Your task to perform on an android device: snooze an email in the gmail app Image 0: 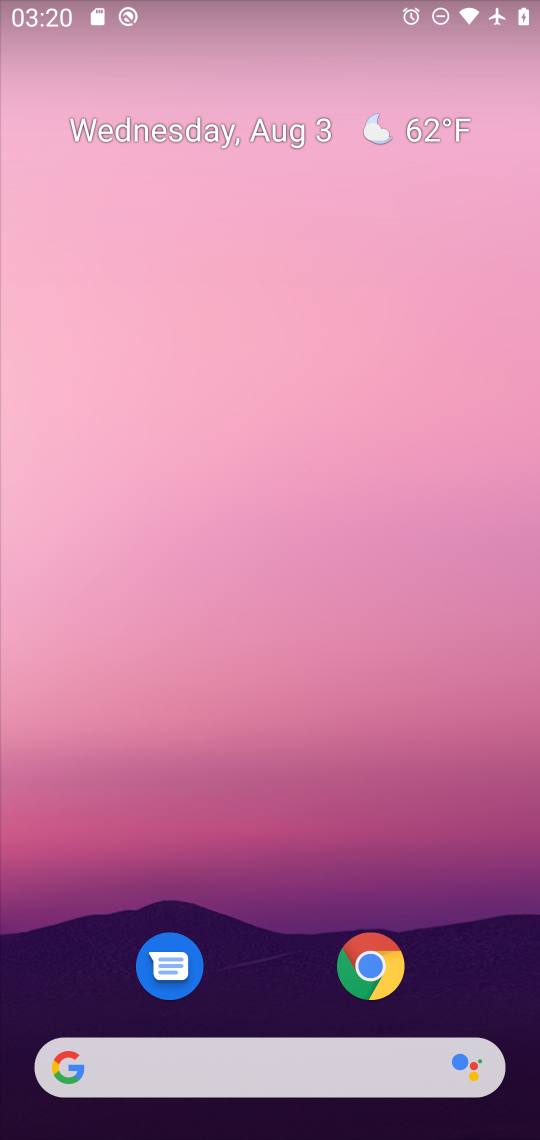
Step 0: drag from (278, 891) to (309, 306)
Your task to perform on an android device: snooze an email in the gmail app Image 1: 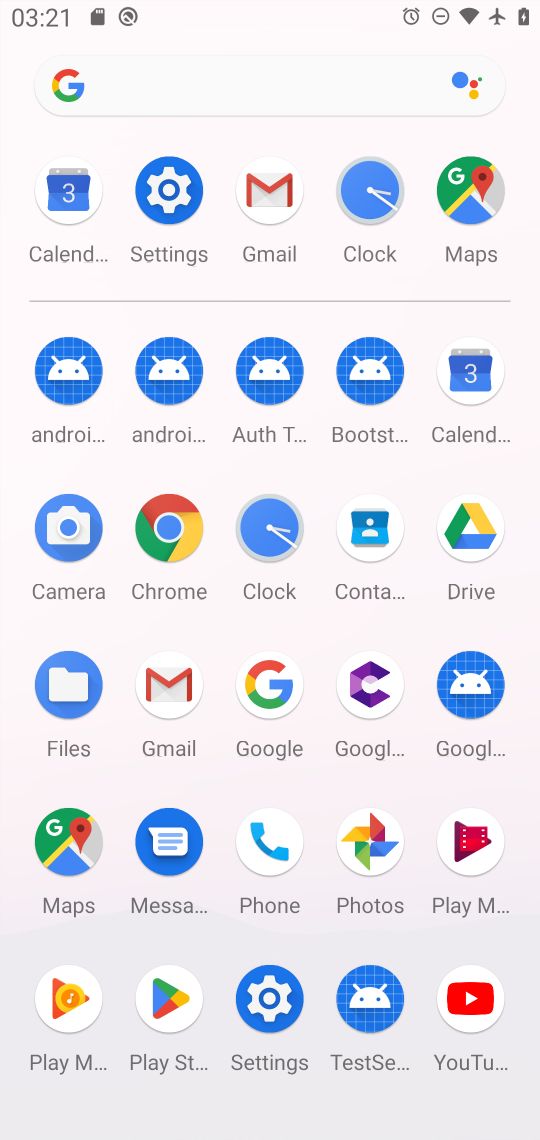
Step 1: click (258, 239)
Your task to perform on an android device: snooze an email in the gmail app Image 2: 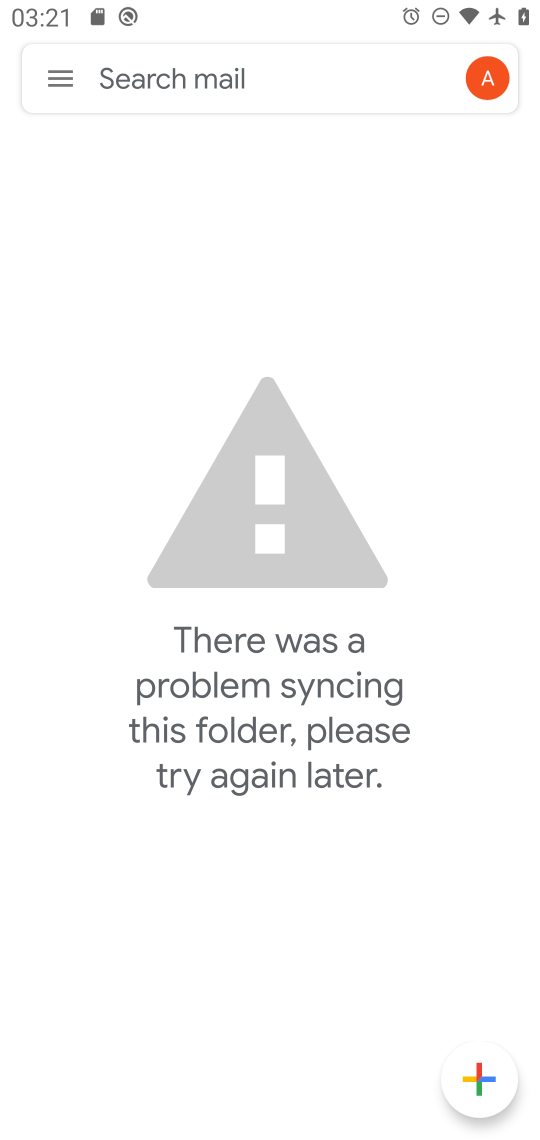
Step 2: click (63, 74)
Your task to perform on an android device: snooze an email in the gmail app Image 3: 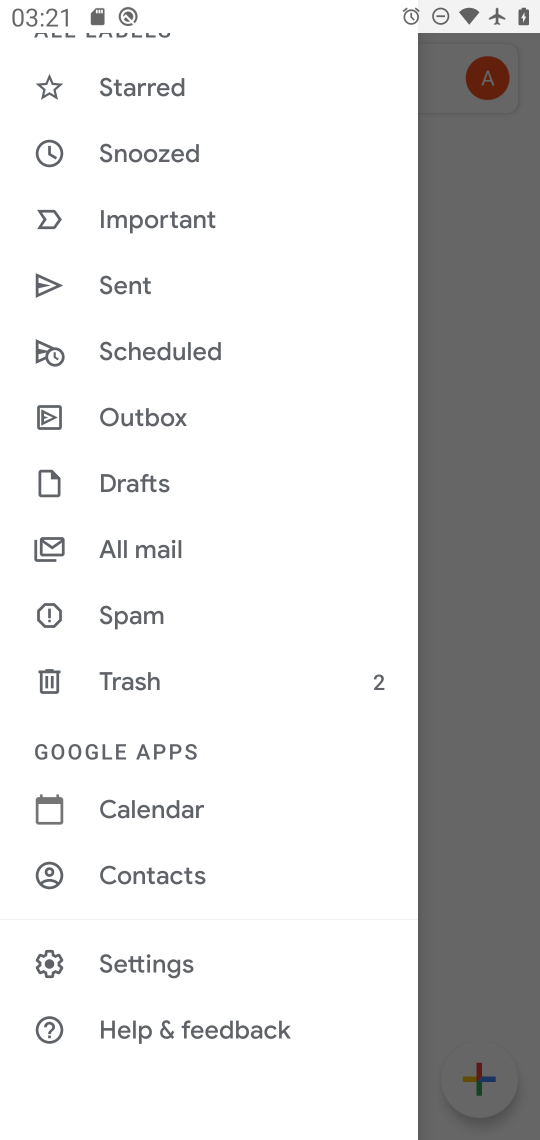
Step 3: click (110, 546)
Your task to perform on an android device: snooze an email in the gmail app Image 4: 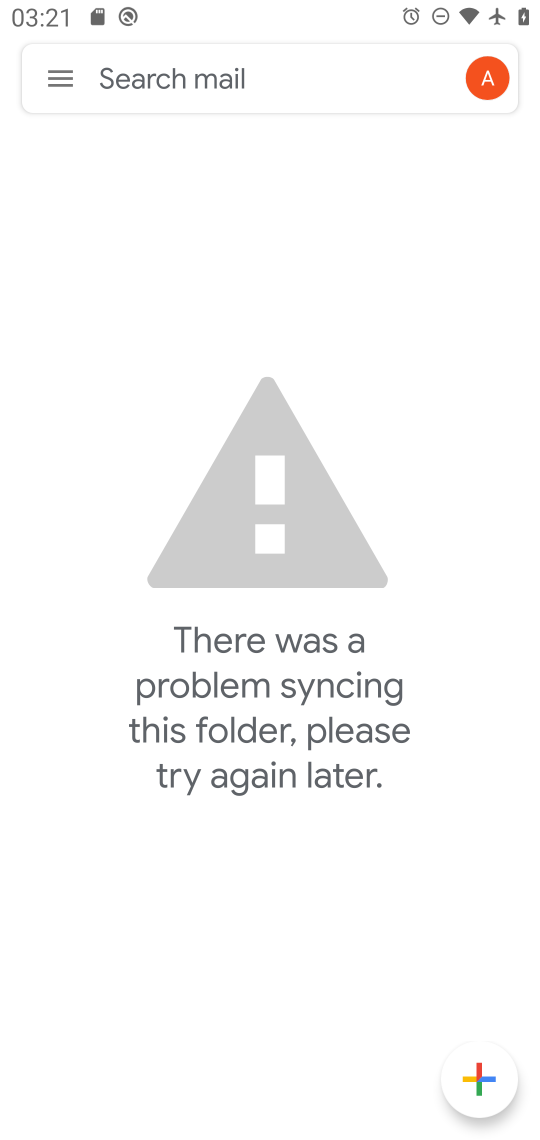
Step 4: click (64, 82)
Your task to perform on an android device: snooze an email in the gmail app Image 5: 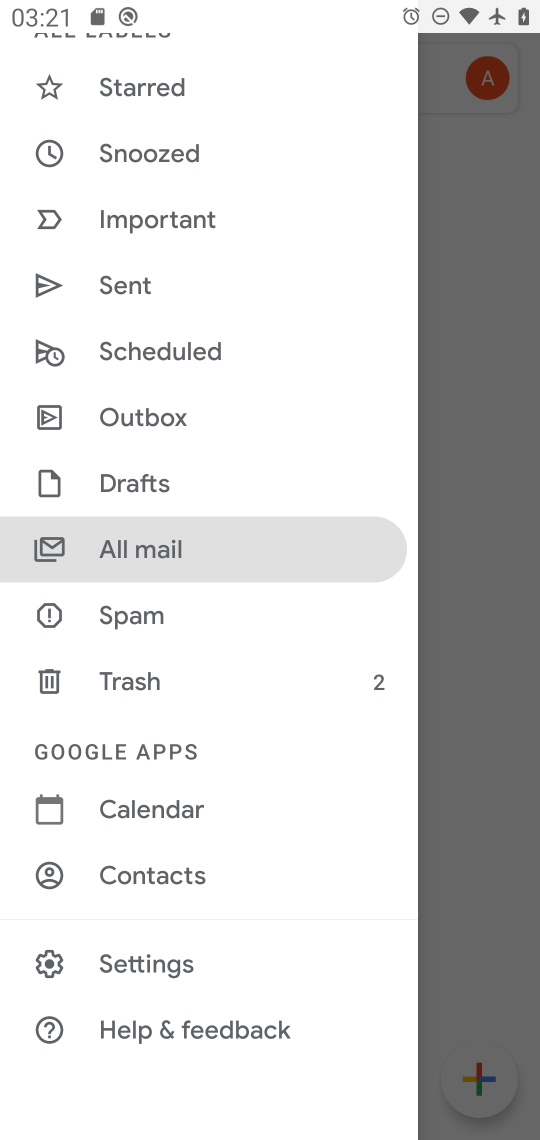
Step 5: task complete